Your task to perform on an android device: Go to Google maps Image 0: 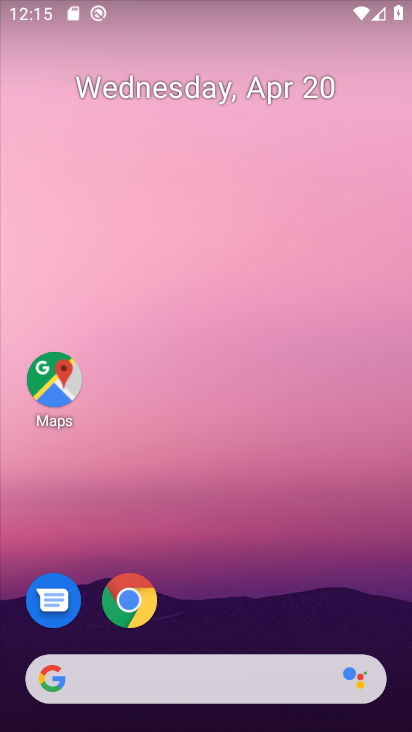
Step 0: drag from (359, 571) to (284, 0)
Your task to perform on an android device: Go to Google maps Image 1: 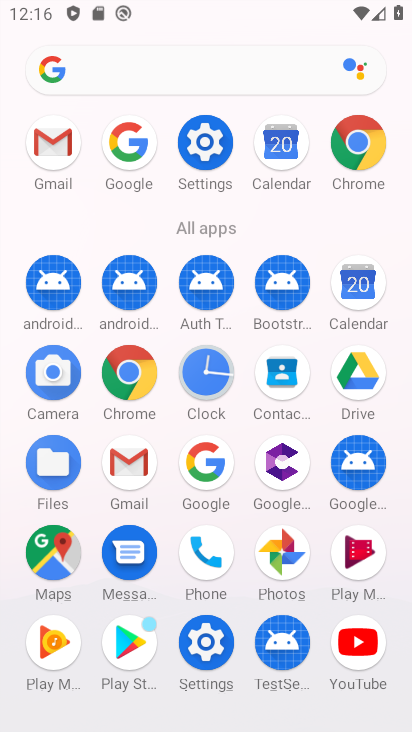
Step 1: click (49, 544)
Your task to perform on an android device: Go to Google maps Image 2: 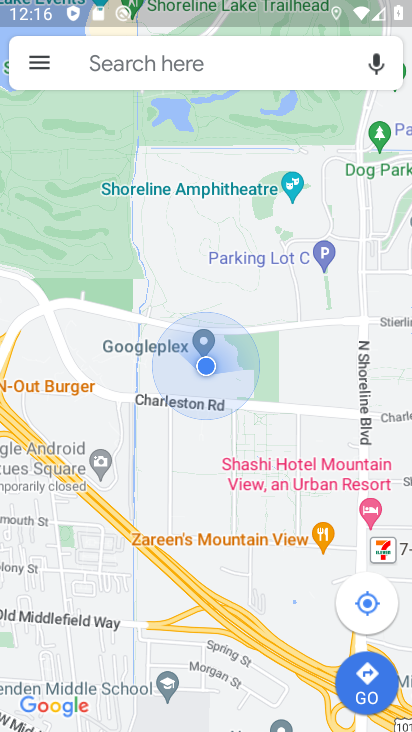
Step 2: task complete